Your task to perform on an android device: Is it going to rain today? Image 0: 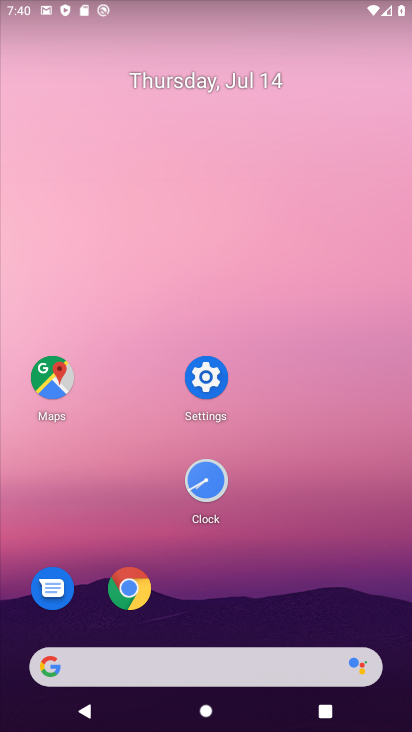
Step 0: drag from (2, 220) to (401, 234)
Your task to perform on an android device: Is it going to rain today? Image 1: 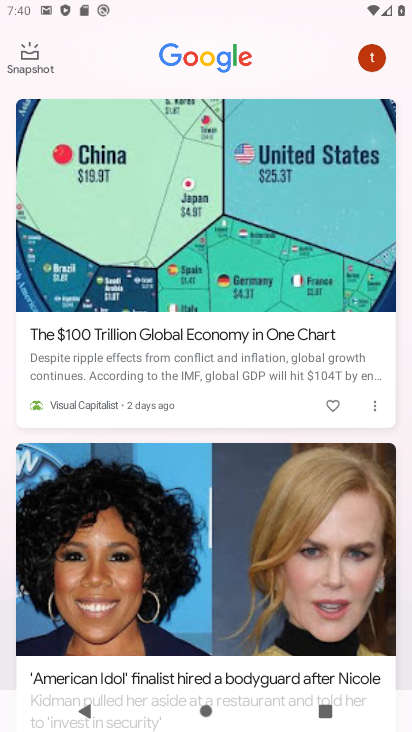
Step 1: task complete